Your task to perform on an android device: Open Android settings Image 0: 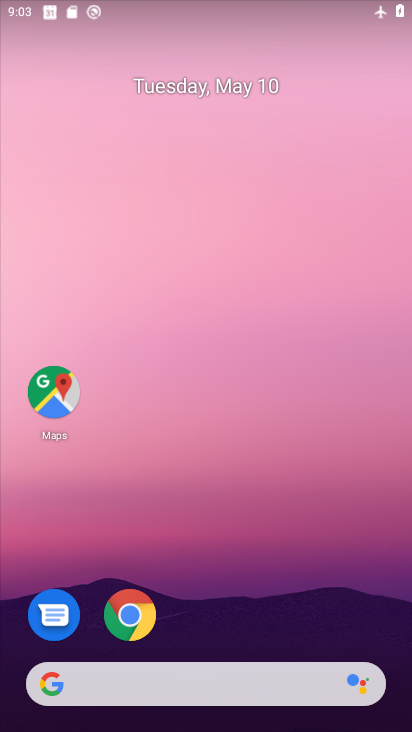
Step 0: drag from (212, 608) to (207, 33)
Your task to perform on an android device: Open Android settings Image 1: 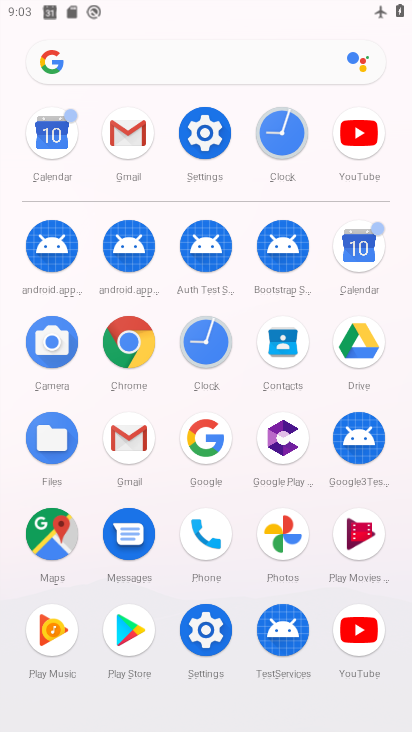
Step 1: click (193, 121)
Your task to perform on an android device: Open Android settings Image 2: 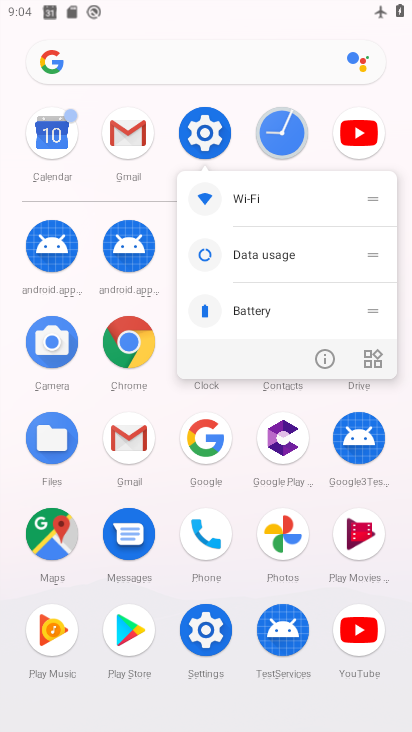
Step 2: click (325, 355)
Your task to perform on an android device: Open Android settings Image 3: 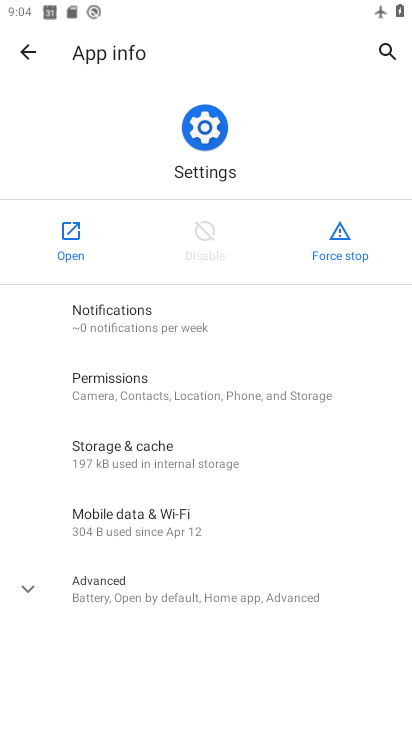
Step 3: click (58, 238)
Your task to perform on an android device: Open Android settings Image 4: 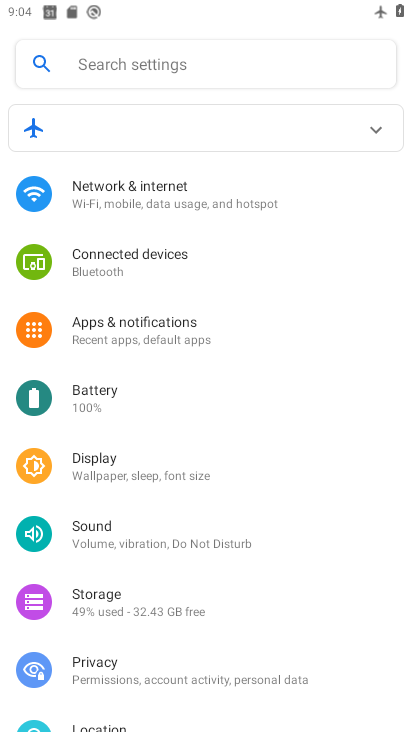
Step 4: drag from (179, 684) to (238, 109)
Your task to perform on an android device: Open Android settings Image 5: 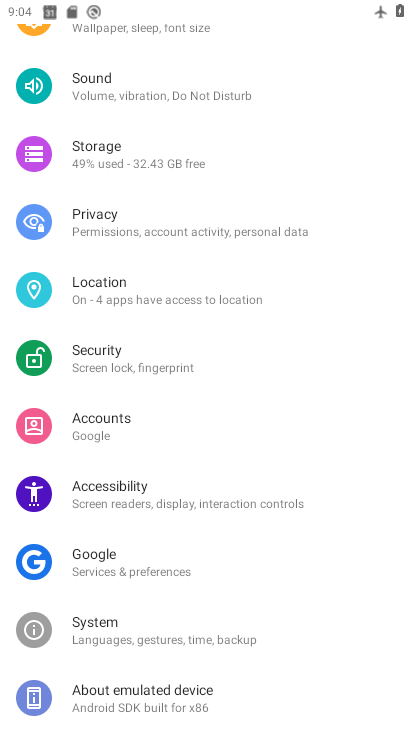
Step 5: click (137, 680)
Your task to perform on an android device: Open Android settings Image 6: 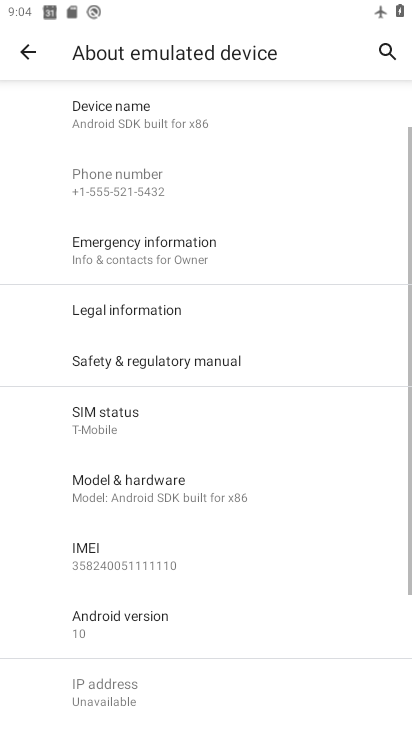
Step 6: click (203, 619)
Your task to perform on an android device: Open Android settings Image 7: 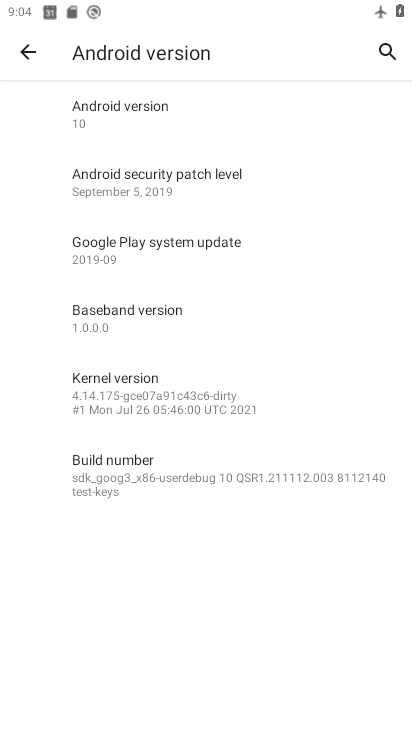
Step 7: task complete